Your task to perform on an android device: turn off notifications in google photos Image 0: 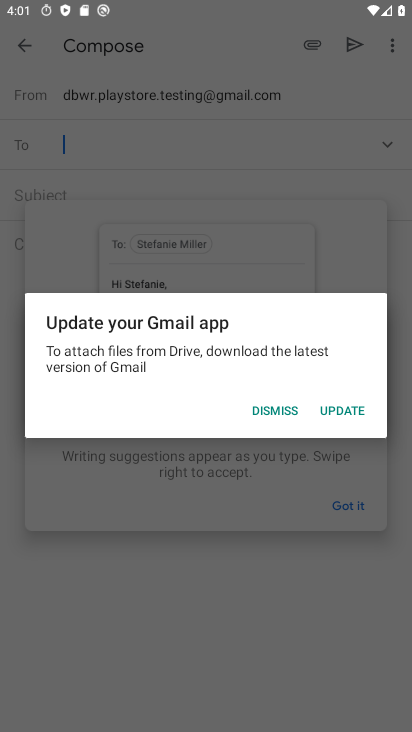
Step 0: press home button
Your task to perform on an android device: turn off notifications in google photos Image 1: 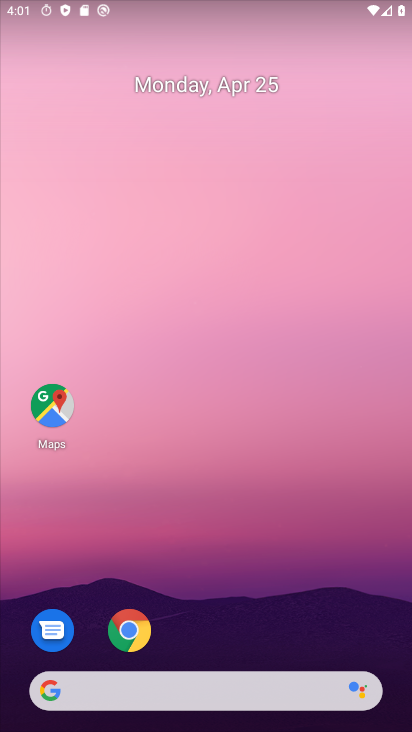
Step 1: drag from (339, 443) to (363, 8)
Your task to perform on an android device: turn off notifications in google photos Image 2: 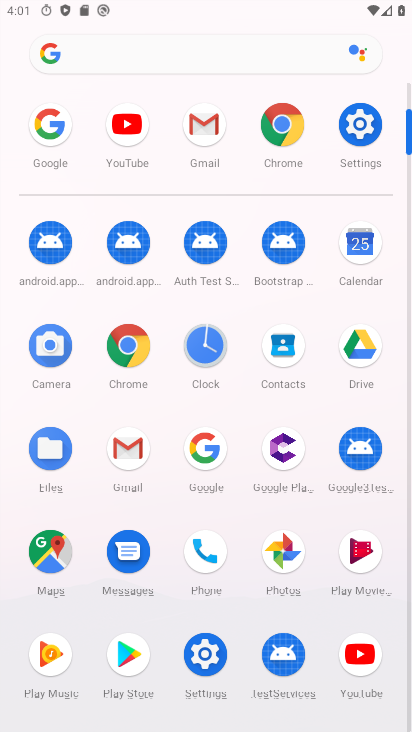
Step 2: click (273, 569)
Your task to perform on an android device: turn off notifications in google photos Image 3: 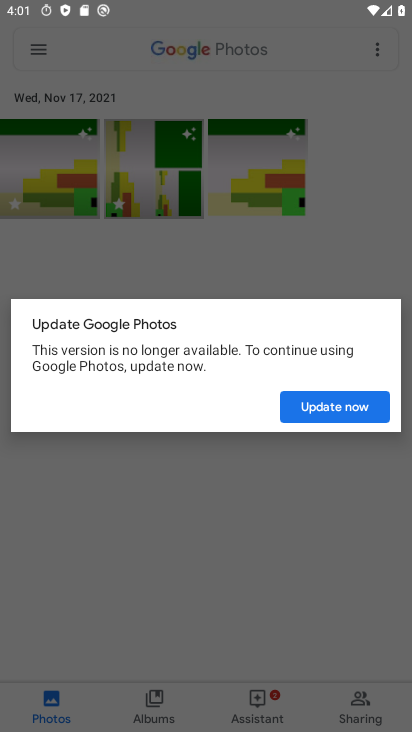
Step 3: click (325, 403)
Your task to perform on an android device: turn off notifications in google photos Image 4: 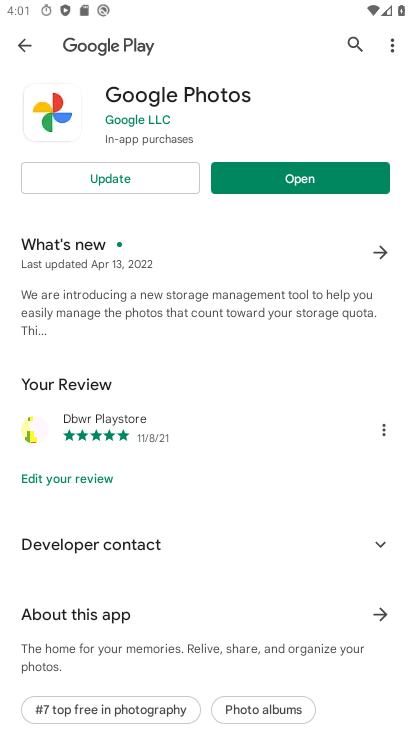
Step 4: click (119, 177)
Your task to perform on an android device: turn off notifications in google photos Image 5: 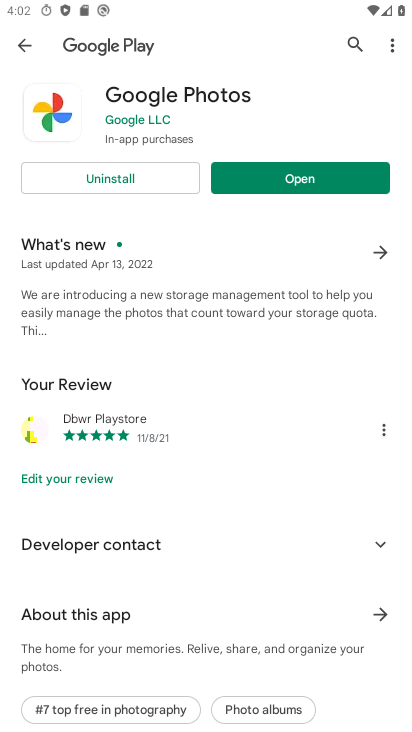
Step 5: click (27, 56)
Your task to perform on an android device: turn off notifications in google photos Image 6: 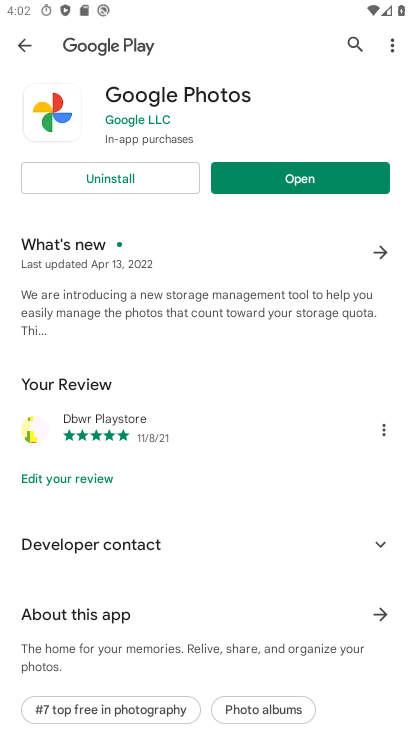
Step 6: click (23, 48)
Your task to perform on an android device: turn off notifications in google photos Image 7: 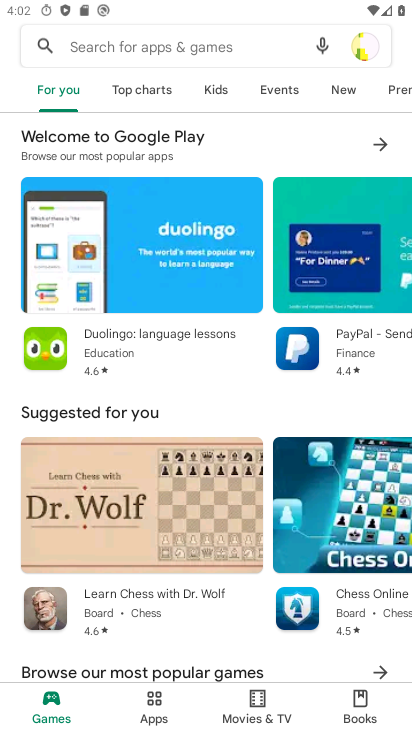
Step 7: click (354, 59)
Your task to perform on an android device: turn off notifications in google photos Image 8: 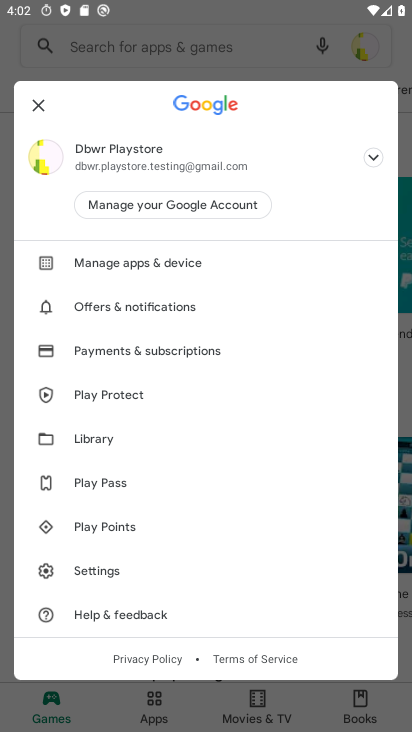
Step 8: drag from (171, 614) to (223, 229)
Your task to perform on an android device: turn off notifications in google photos Image 9: 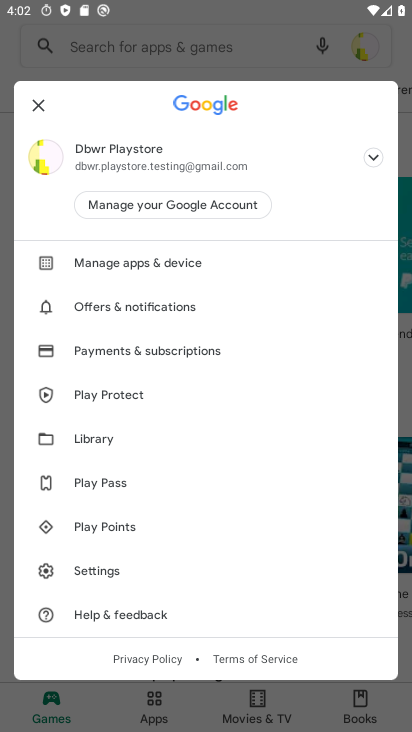
Step 9: click (98, 576)
Your task to perform on an android device: turn off notifications in google photos Image 10: 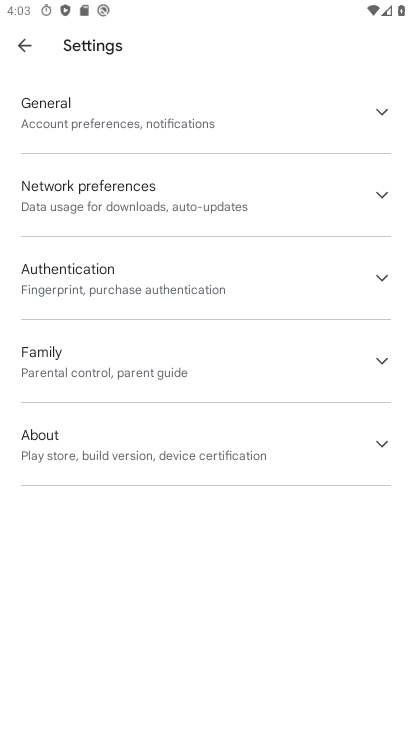
Step 10: click (210, 129)
Your task to perform on an android device: turn off notifications in google photos Image 11: 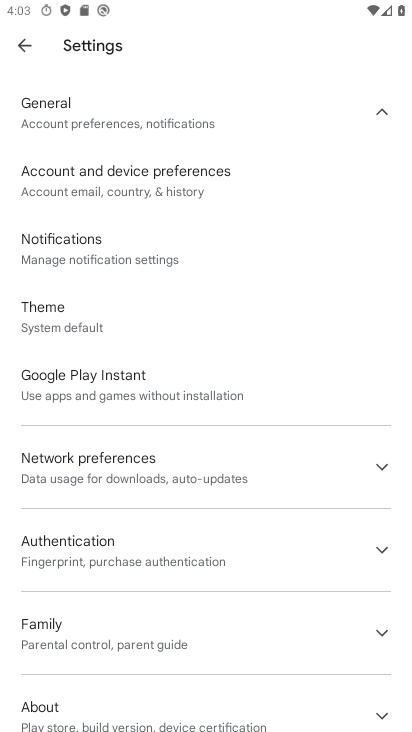
Step 11: click (69, 239)
Your task to perform on an android device: turn off notifications in google photos Image 12: 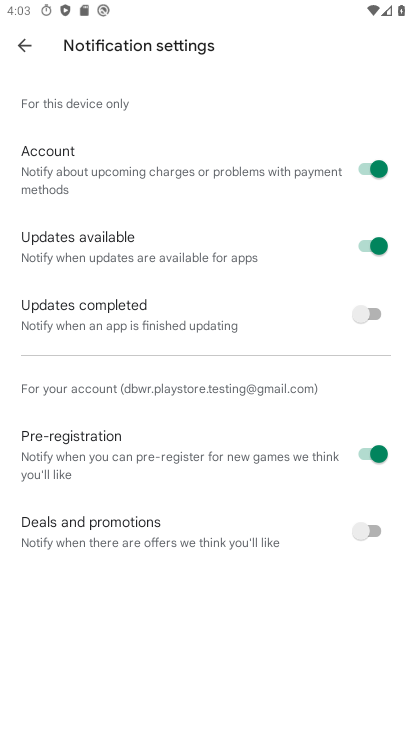
Step 12: click (169, 602)
Your task to perform on an android device: turn off notifications in google photos Image 13: 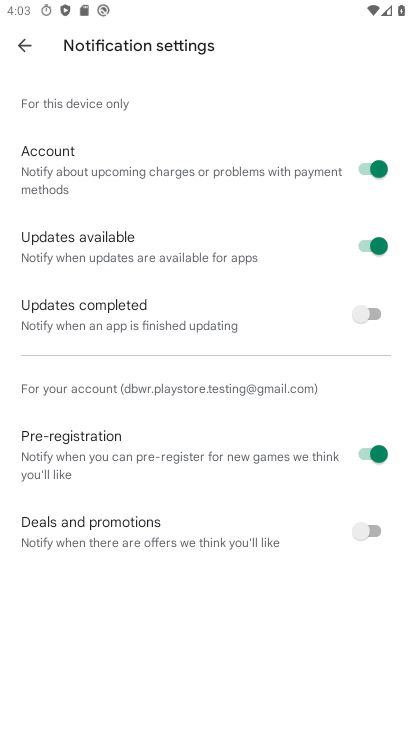
Step 13: task complete